Your task to perform on an android device: move an email to a new category in the gmail app Image 0: 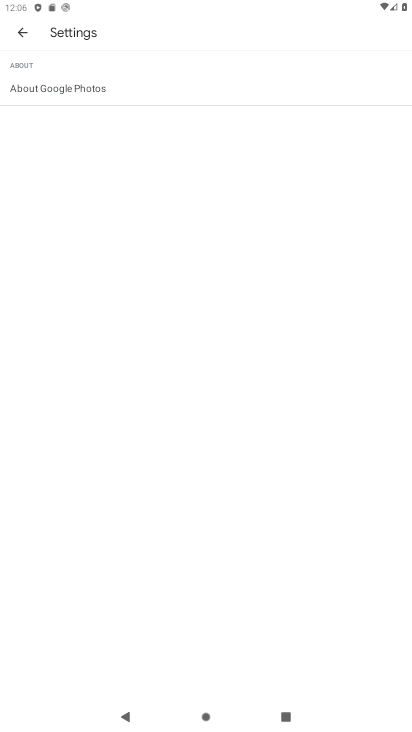
Step 0: press home button
Your task to perform on an android device: move an email to a new category in the gmail app Image 1: 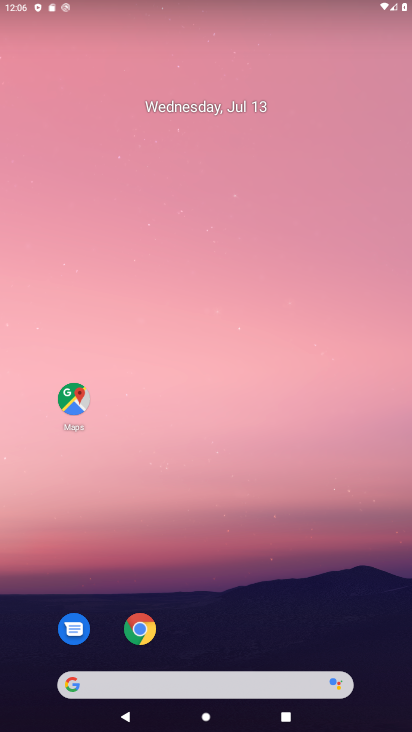
Step 1: drag from (212, 633) to (206, 141)
Your task to perform on an android device: move an email to a new category in the gmail app Image 2: 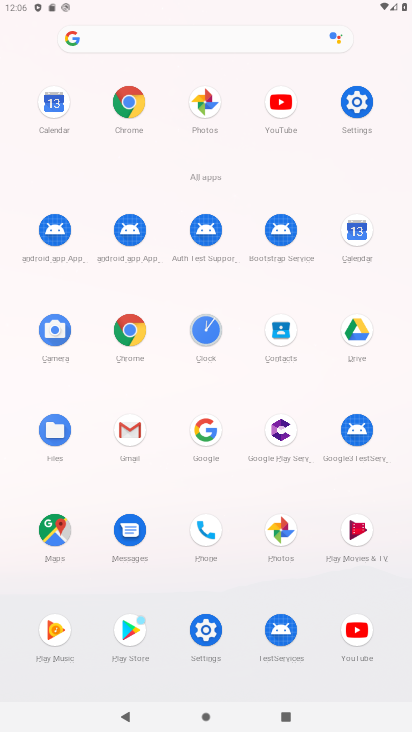
Step 2: click (121, 438)
Your task to perform on an android device: move an email to a new category in the gmail app Image 3: 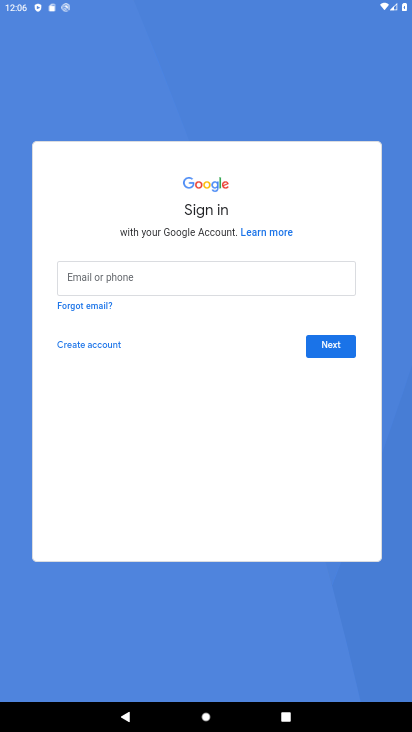
Step 3: task complete